Your task to perform on an android device: turn off sleep mode Image 0: 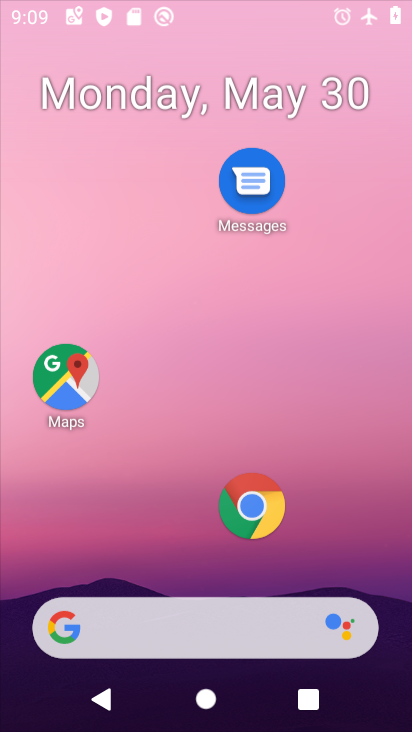
Step 0: click (245, 508)
Your task to perform on an android device: turn off sleep mode Image 1: 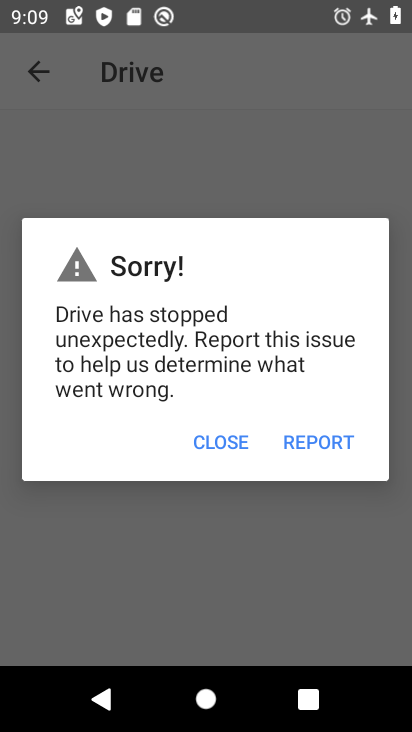
Step 1: task complete